Your task to perform on an android device: Show me the alarms in the clock app Image 0: 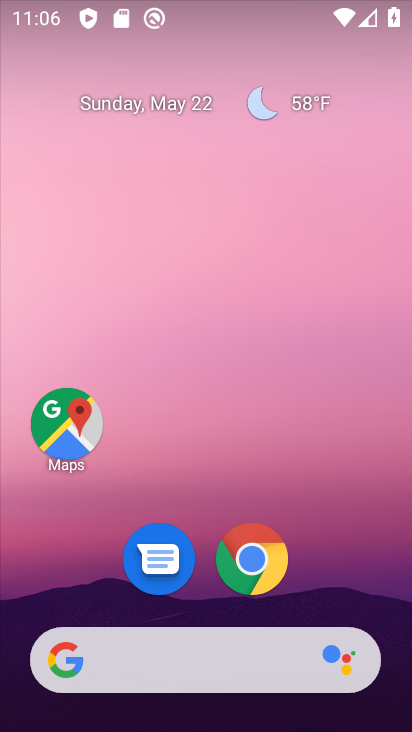
Step 0: drag from (225, 633) to (196, 55)
Your task to perform on an android device: Show me the alarms in the clock app Image 1: 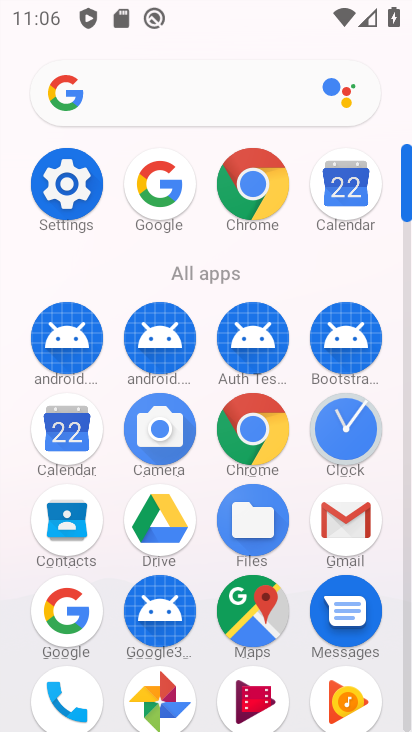
Step 1: click (344, 421)
Your task to perform on an android device: Show me the alarms in the clock app Image 2: 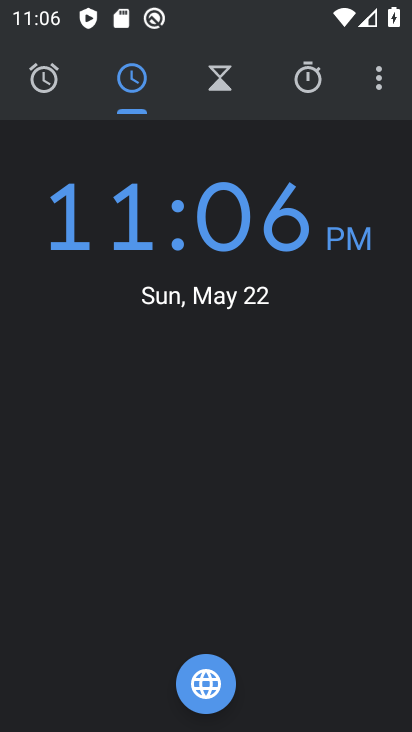
Step 2: click (55, 95)
Your task to perform on an android device: Show me the alarms in the clock app Image 3: 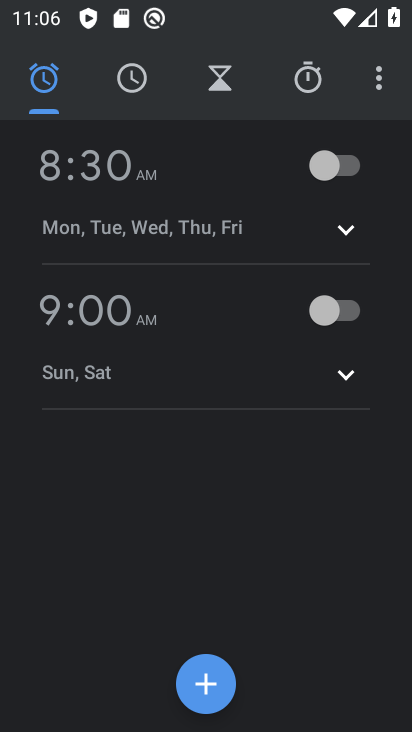
Step 3: task complete